Your task to perform on an android device: turn off sleep mode Image 0: 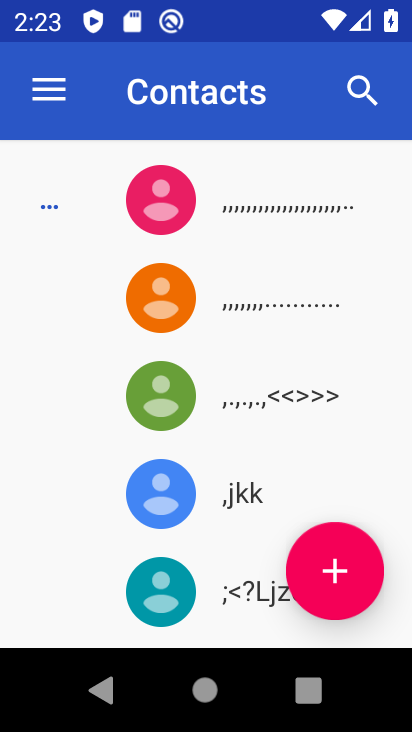
Step 0: click (66, 85)
Your task to perform on an android device: turn off sleep mode Image 1: 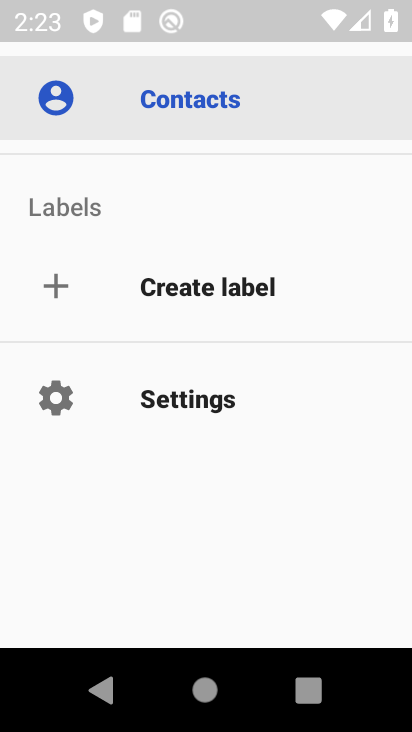
Step 1: click (95, 689)
Your task to perform on an android device: turn off sleep mode Image 2: 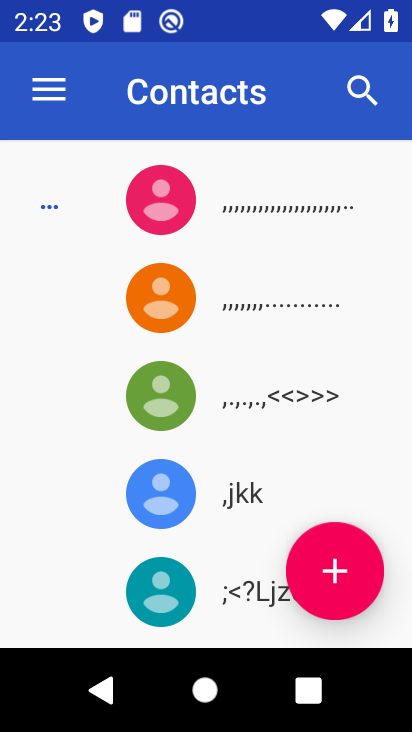
Step 2: click (95, 688)
Your task to perform on an android device: turn off sleep mode Image 3: 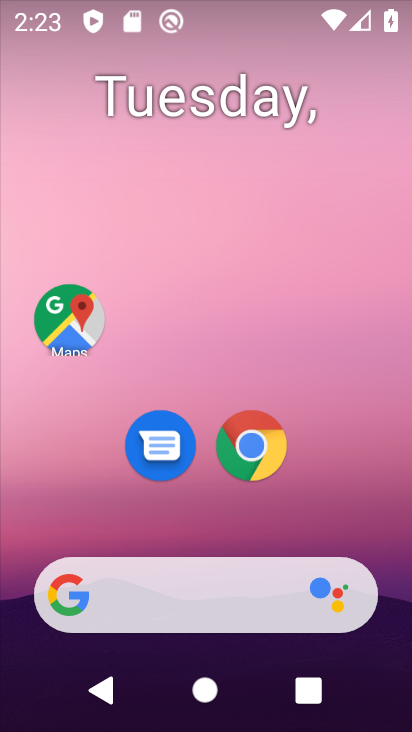
Step 3: drag from (319, 429) to (320, 22)
Your task to perform on an android device: turn off sleep mode Image 4: 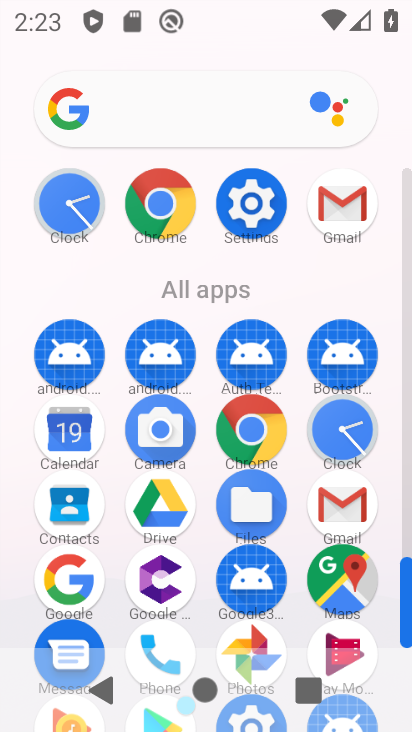
Step 4: click (248, 202)
Your task to perform on an android device: turn off sleep mode Image 5: 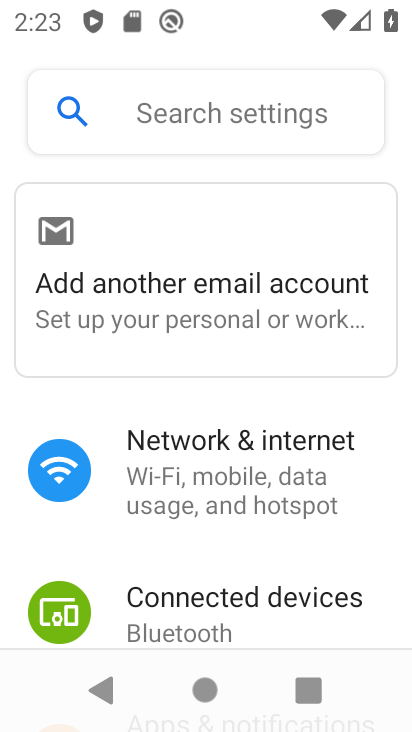
Step 5: drag from (245, 583) to (274, 187)
Your task to perform on an android device: turn off sleep mode Image 6: 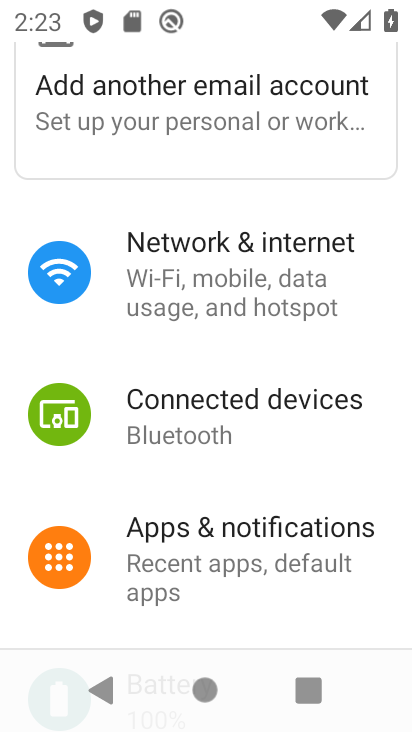
Step 6: drag from (265, 491) to (303, 247)
Your task to perform on an android device: turn off sleep mode Image 7: 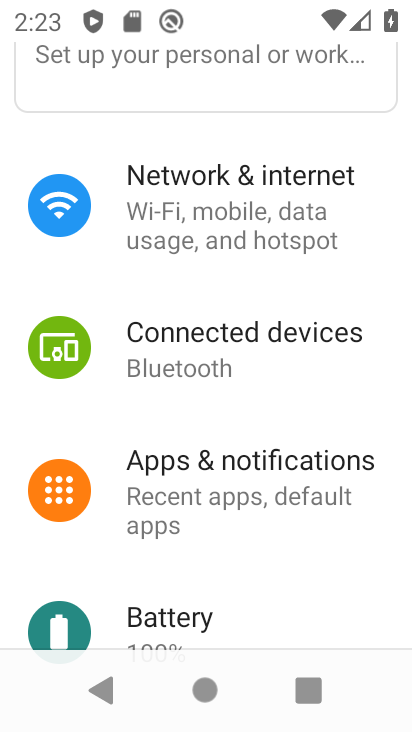
Step 7: drag from (262, 573) to (358, 123)
Your task to perform on an android device: turn off sleep mode Image 8: 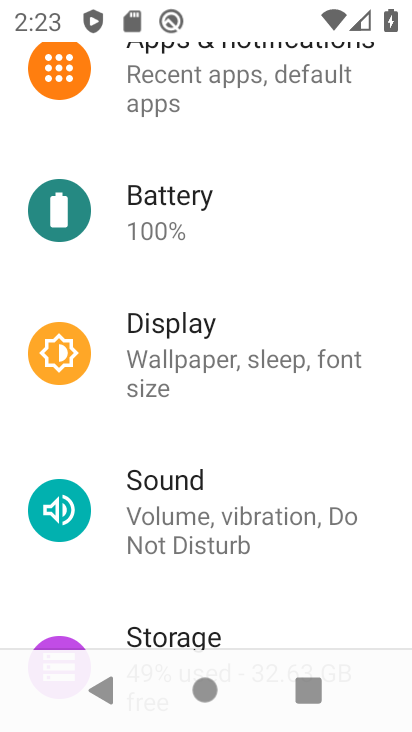
Step 8: drag from (271, 572) to (334, 264)
Your task to perform on an android device: turn off sleep mode Image 9: 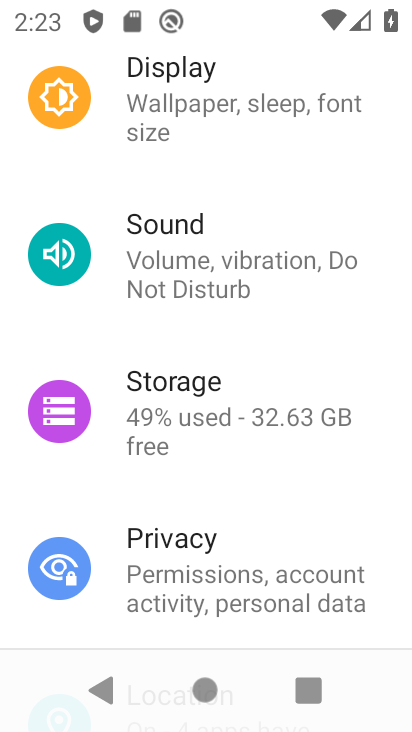
Step 9: drag from (280, 523) to (325, 129)
Your task to perform on an android device: turn off sleep mode Image 10: 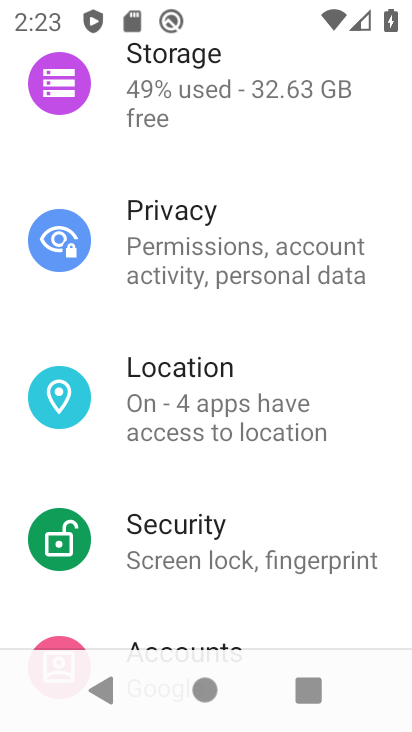
Step 10: drag from (256, 466) to (297, 111)
Your task to perform on an android device: turn off sleep mode Image 11: 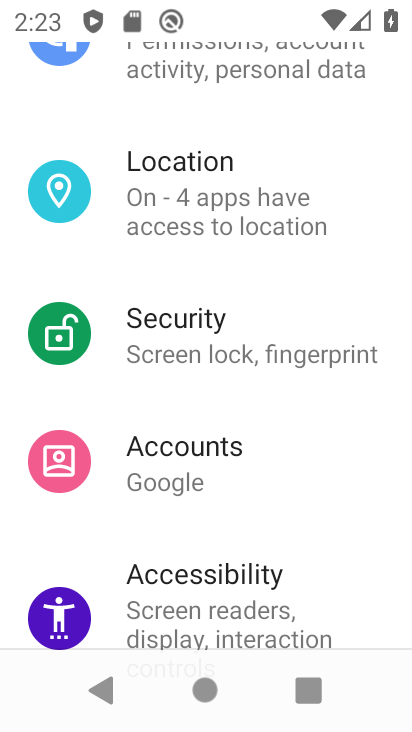
Step 11: drag from (239, 514) to (283, 110)
Your task to perform on an android device: turn off sleep mode Image 12: 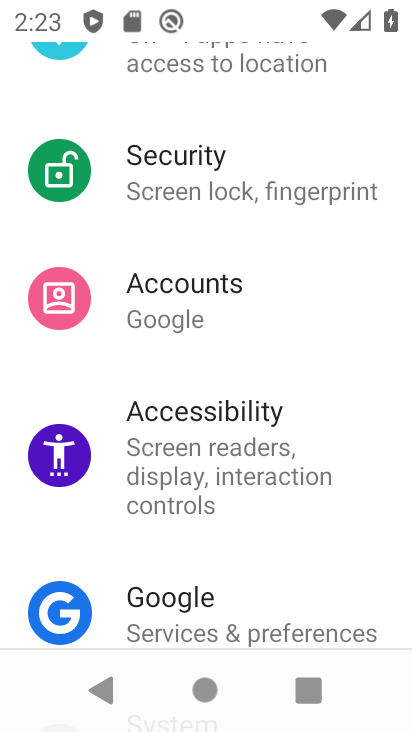
Step 12: drag from (285, 229) to (292, 509)
Your task to perform on an android device: turn off sleep mode Image 13: 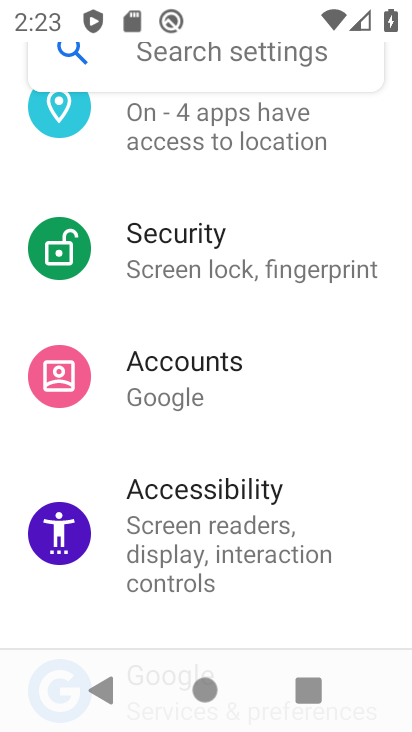
Step 13: drag from (322, 177) to (308, 504)
Your task to perform on an android device: turn off sleep mode Image 14: 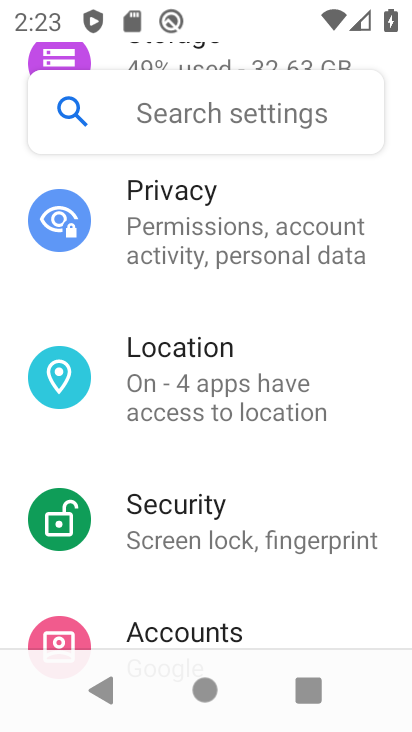
Step 14: drag from (271, 194) to (291, 544)
Your task to perform on an android device: turn off sleep mode Image 15: 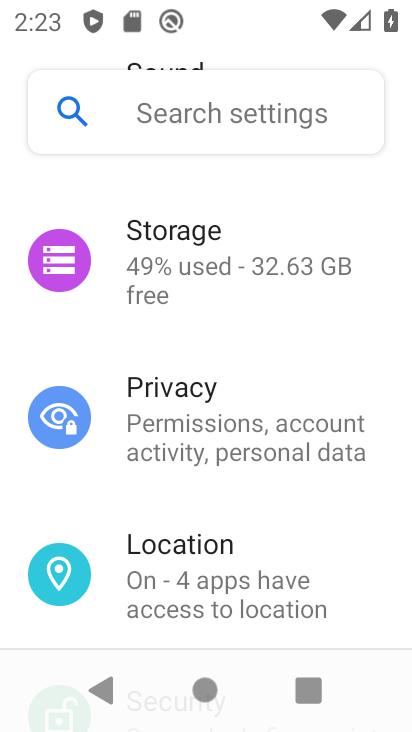
Step 15: drag from (250, 225) to (282, 611)
Your task to perform on an android device: turn off sleep mode Image 16: 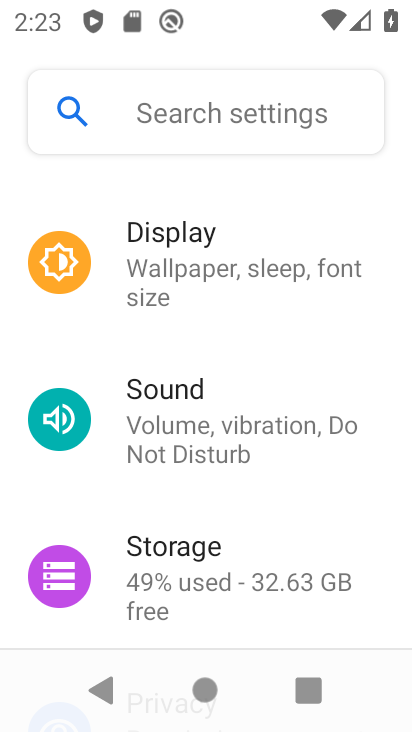
Step 16: click (184, 263)
Your task to perform on an android device: turn off sleep mode Image 17: 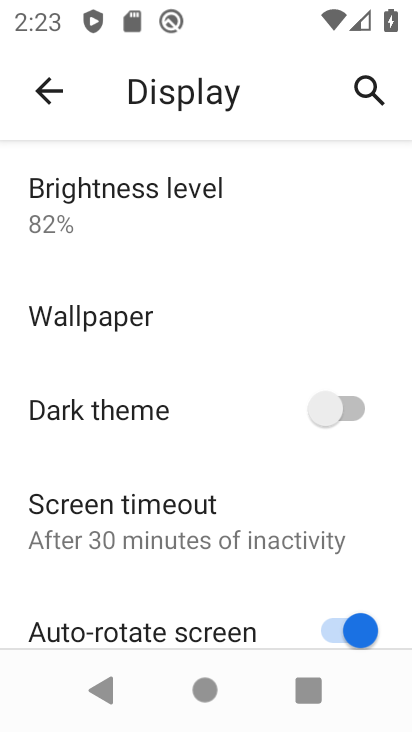
Step 17: drag from (121, 557) to (54, 160)
Your task to perform on an android device: turn off sleep mode Image 18: 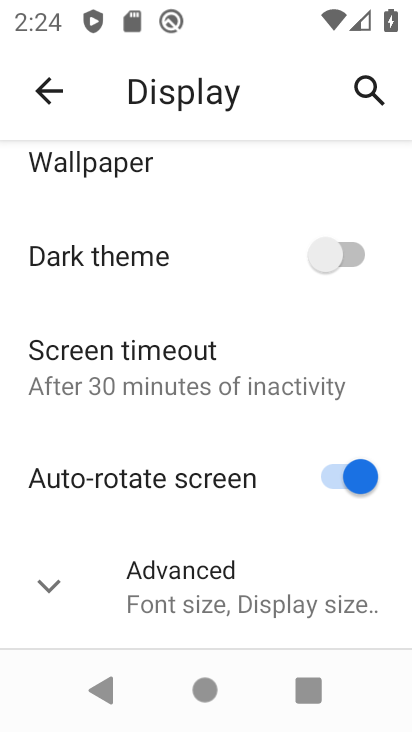
Step 18: click (192, 323)
Your task to perform on an android device: turn off sleep mode Image 19: 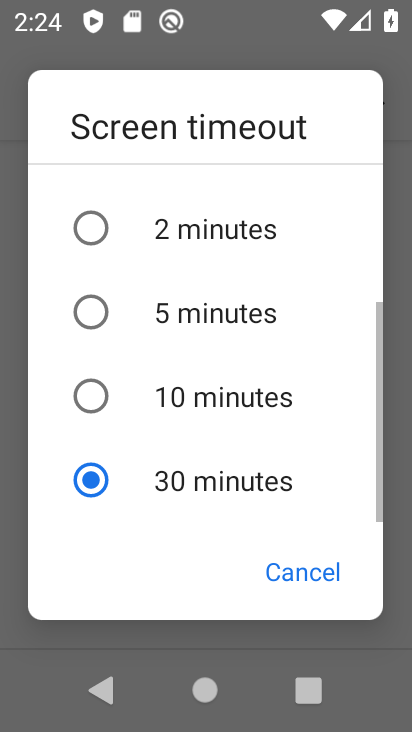
Step 19: task complete